Your task to perform on an android device: Open display settings Image 0: 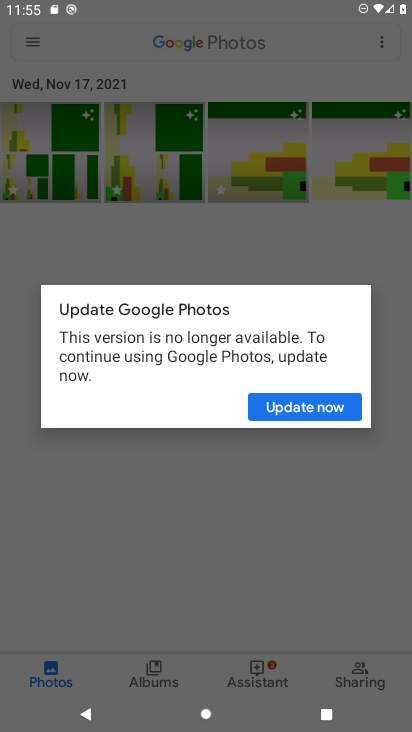
Step 0: press home button
Your task to perform on an android device: Open display settings Image 1: 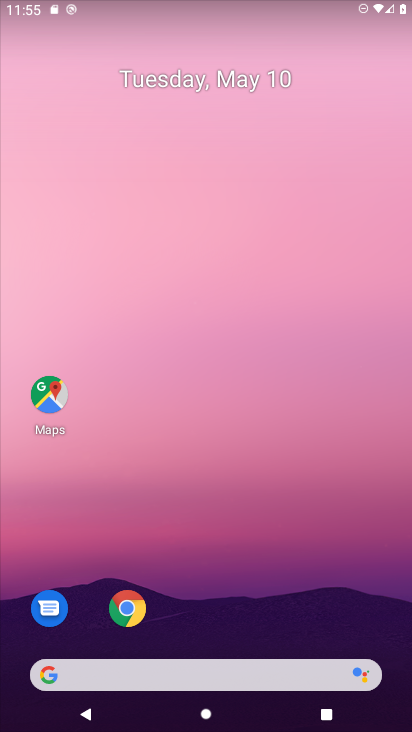
Step 1: drag from (248, 551) to (296, 69)
Your task to perform on an android device: Open display settings Image 2: 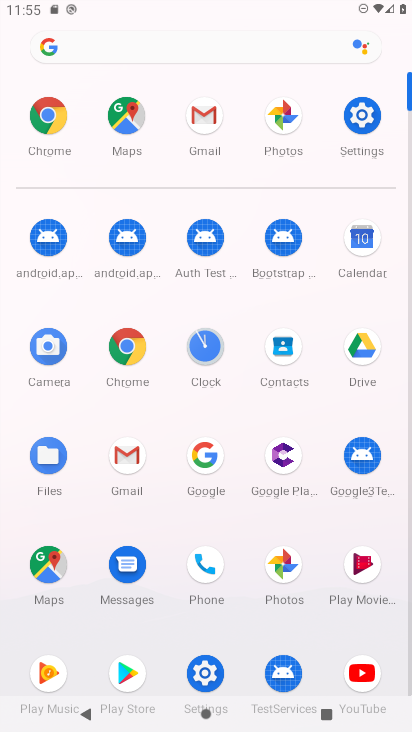
Step 2: click (356, 115)
Your task to perform on an android device: Open display settings Image 3: 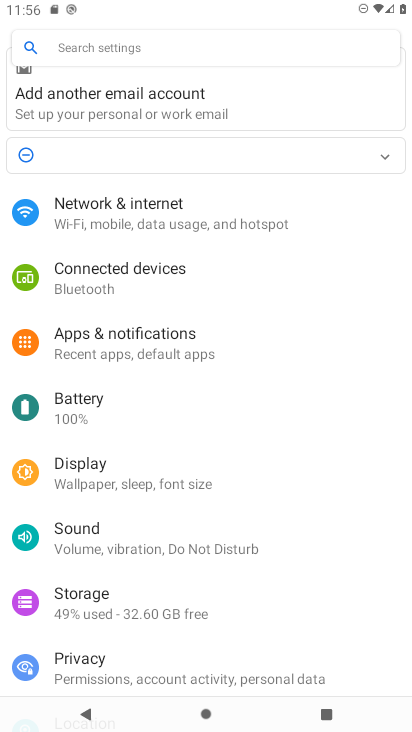
Step 3: click (131, 475)
Your task to perform on an android device: Open display settings Image 4: 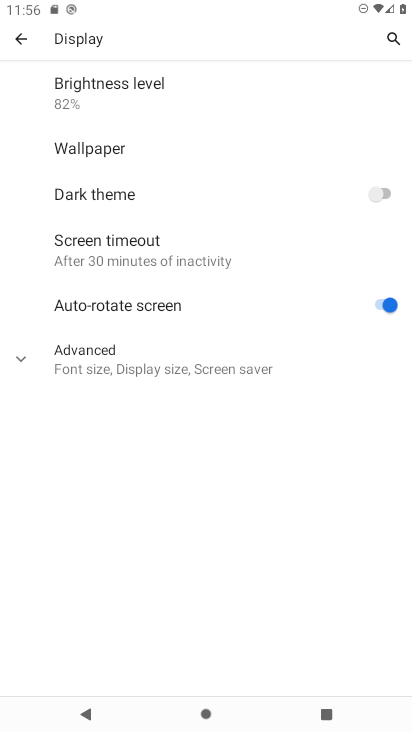
Step 4: task complete